Your task to perform on an android device: star an email in the gmail app Image 0: 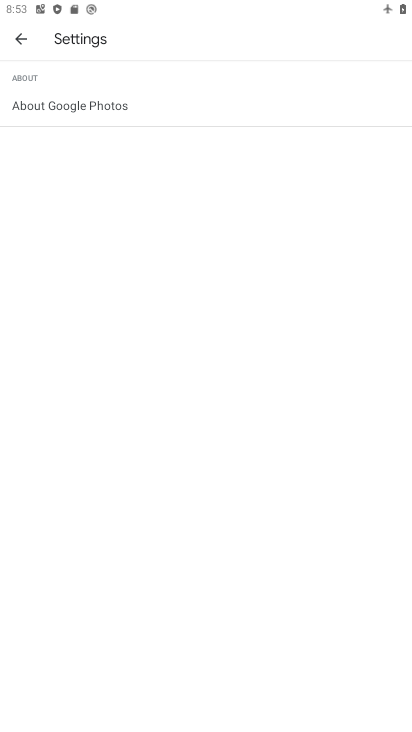
Step 0: press home button
Your task to perform on an android device: star an email in the gmail app Image 1: 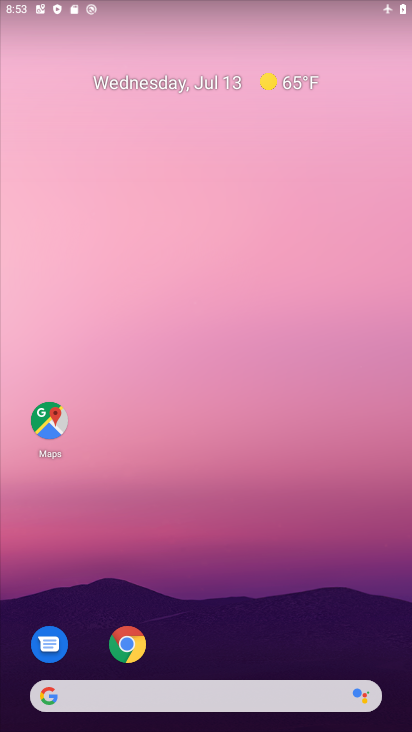
Step 1: drag from (259, 523) to (257, 56)
Your task to perform on an android device: star an email in the gmail app Image 2: 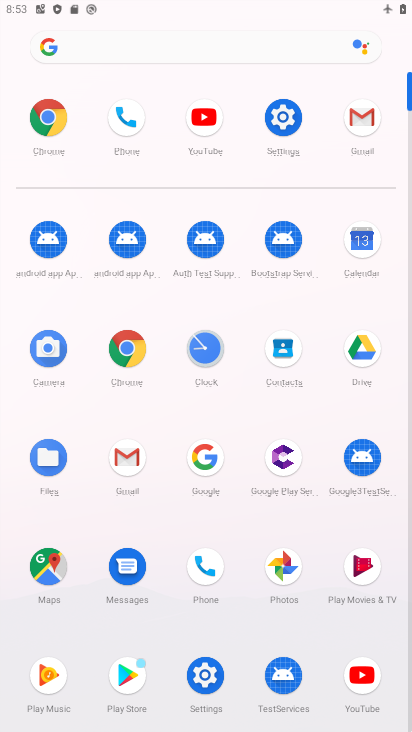
Step 2: click (363, 129)
Your task to perform on an android device: star an email in the gmail app Image 3: 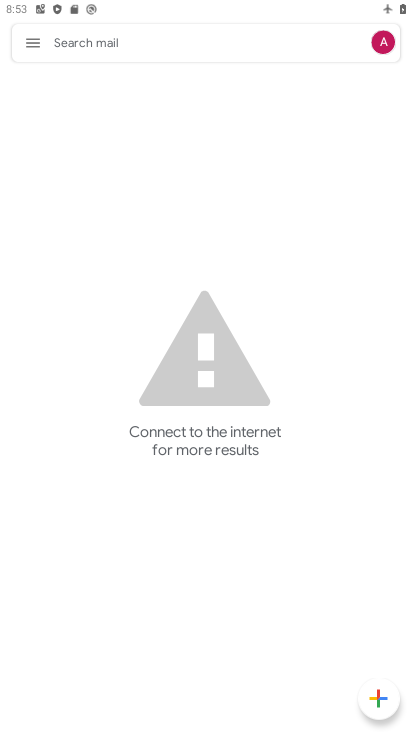
Step 3: click (13, 40)
Your task to perform on an android device: star an email in the gmail app Image 4: 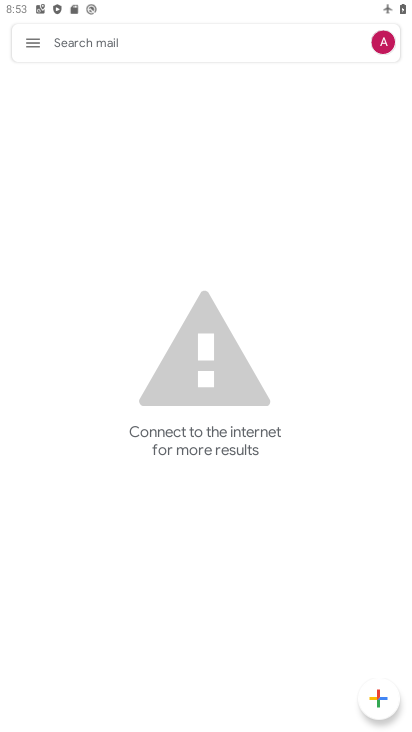
Step 4: click (31, 52)
Your task to perform on an android device: star an email in the gmail app Image 5: 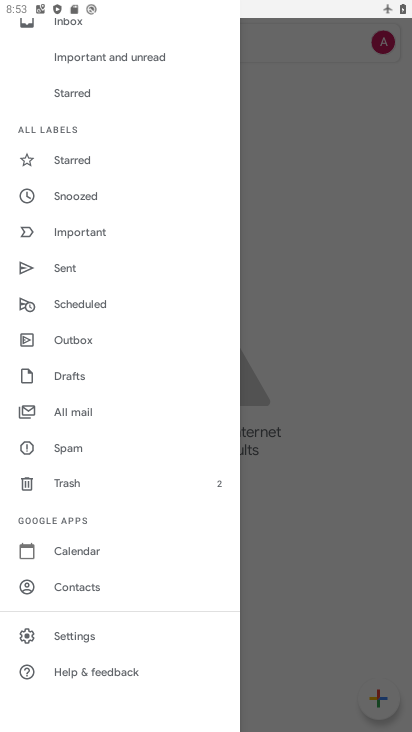
Step 5: drag from (82, 172) to (127, 410)
Your task to perform on an android device: star an email in the gmail app Image 6: 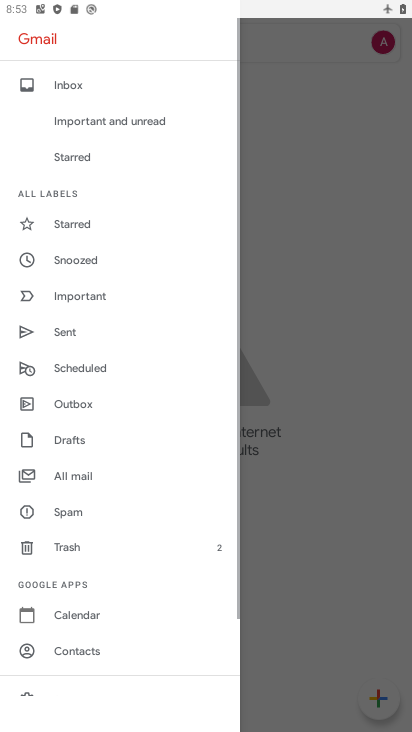
Step 6: click (73, 90)
Your task to perform on an android device: star an email in the gmail app Image 7: 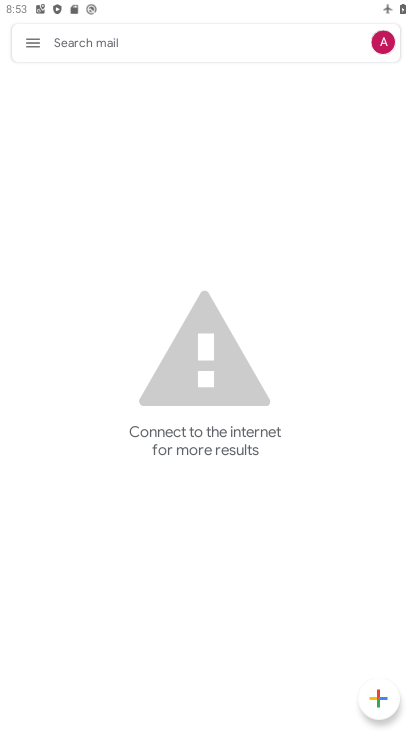
Step 7: task complete